Your task to perform on an android device: What's the weather going to be tomorrow? Image 0: 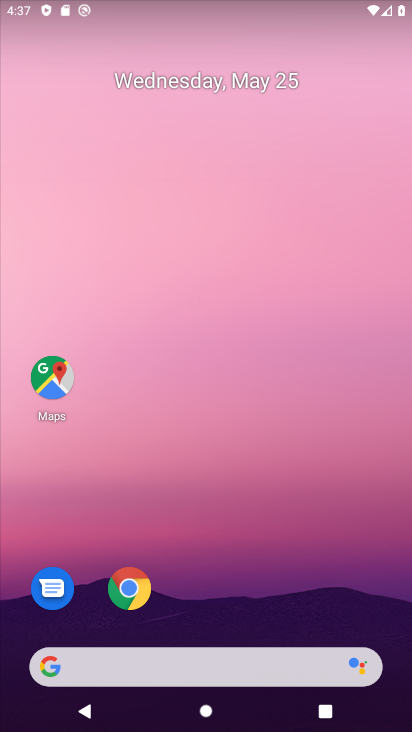
Step 0: click (147, 665)
Your task to perform on an android device: What's the weather going to be tomorrow? Image 1: 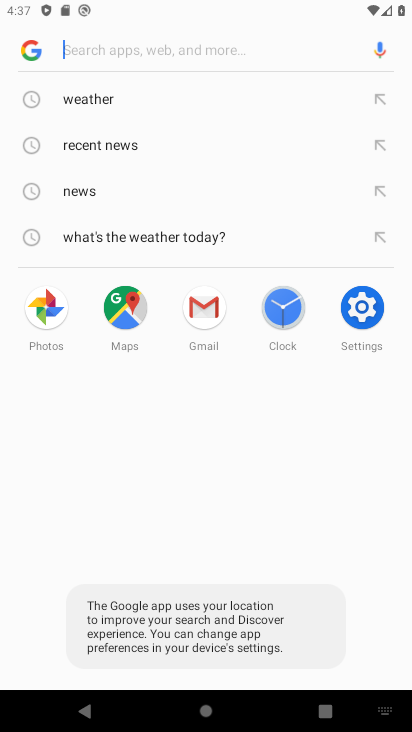
Step 1: click (193, 102)
Your task to perform on an android device: What's the weather going to be tomorrow? Image 2: 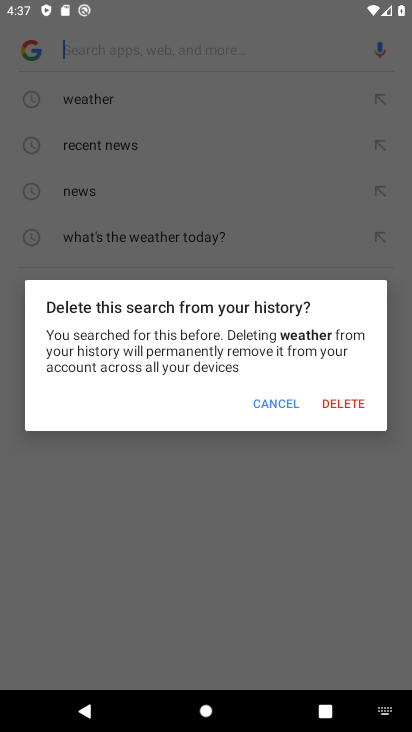
Step 2: click (94, 94)
Your task to perform on an android device: What's the weather going to be tomorrow? Image 3: 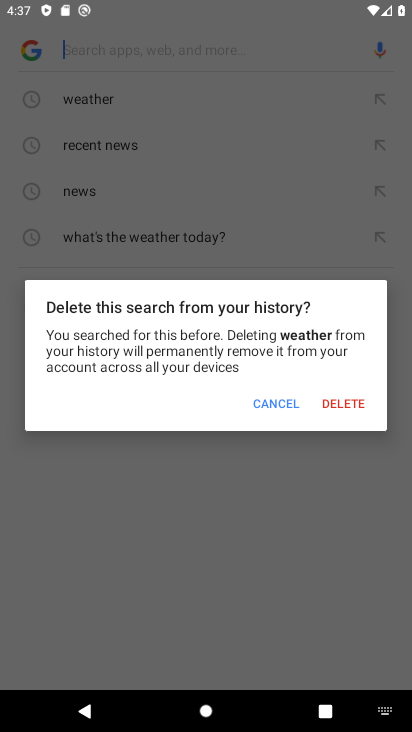
Step 3: click (104, 104)
Your task to perform on an android device: What's the weather going to be tomorrow? Image 4: 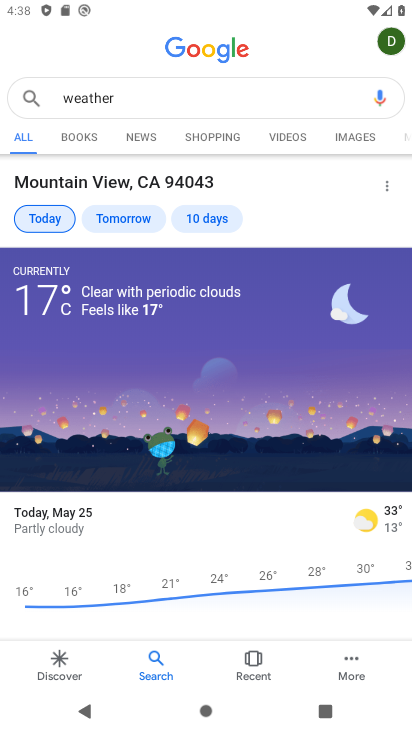
Step 4: click (136, 232)
Your task to perform on an android device: What's the weather going to be tomorrow? Image 5: 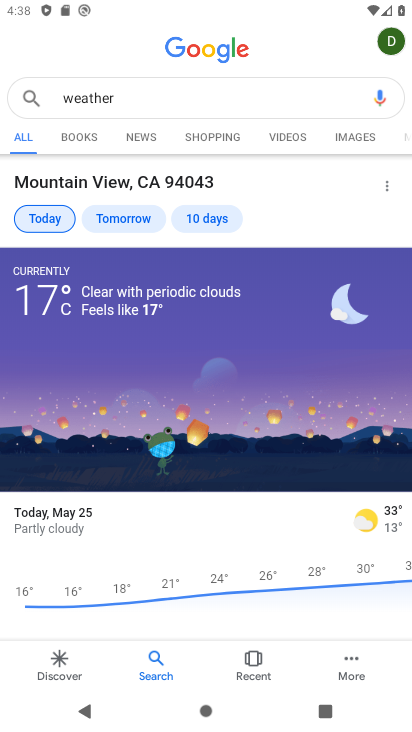
Step 5: drag from (162, 506) to (243, 148)
Your task to perform on an android device: What's the weather going to be tomorrow? Image 6: 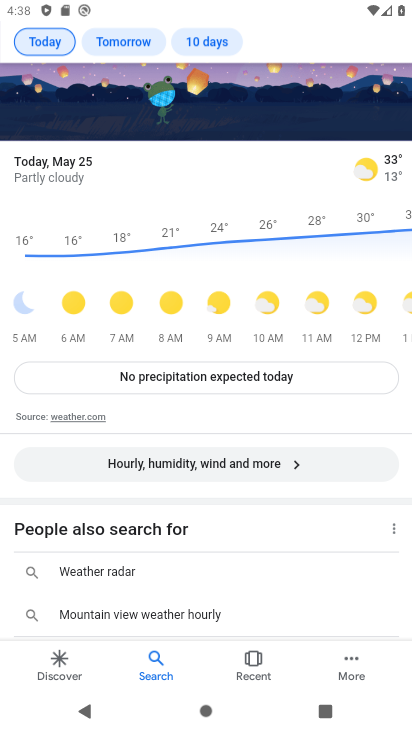
Step 6: drag from (194, 513) to (271, 147)
Your task to perform on an android device: What's the weather going to be tomorrow? Image 7: 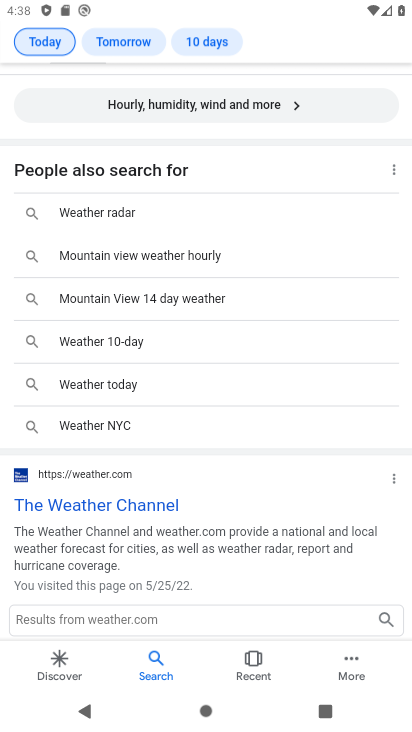
Step 7: click (154, 512)
Your task to perform on an android device: What's the weather going to be tomorrow? Image 8: 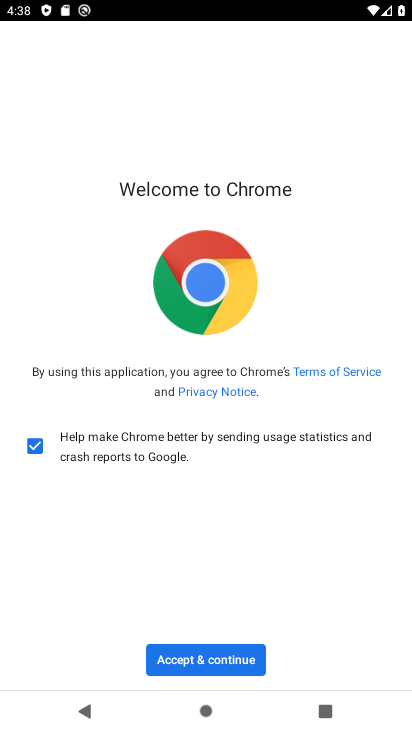
Step 8: click (213, 675)
Your task to perform on an android device: What's the weather going to be tomorrow? Image 9: 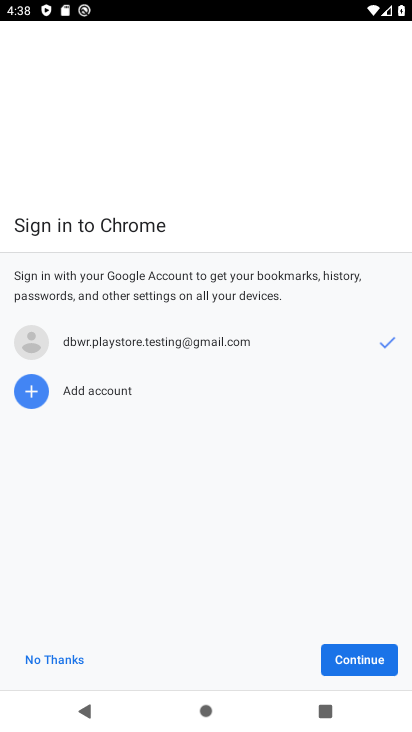
Step 9: click (372, 658)
Your task to perform on an android device: What's the weather going to be tomorrow? Image 10: 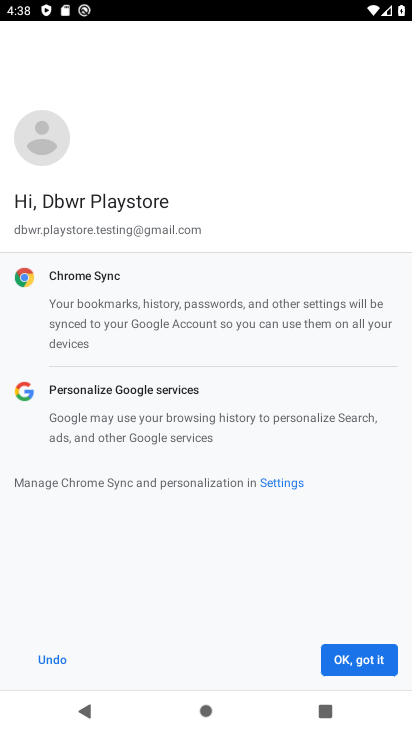
Step 10: click (372, 658)
Your task to perform on an android device: What's the weather going to be tomorrow? Image 11: 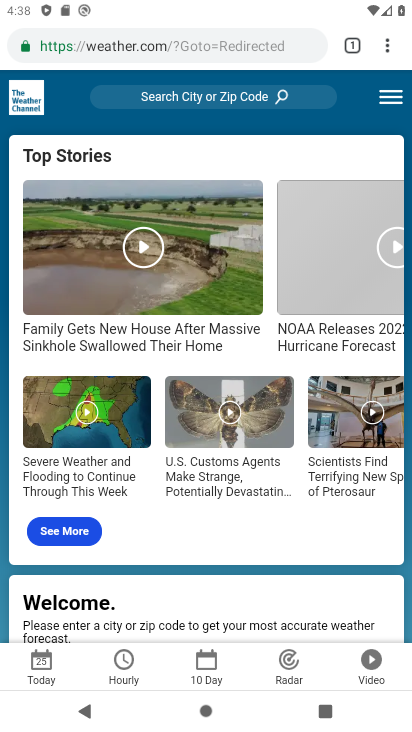
Step 11: click (202, 660)
Your task to perform on an android device: What's the weather going to be tomorrow? Image 12: 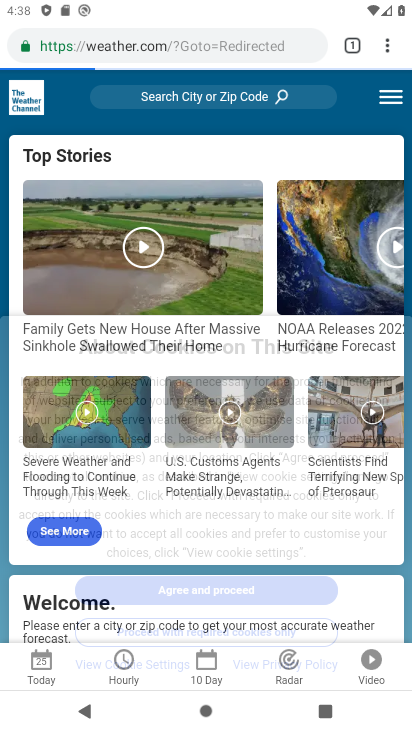
Step 12: click (201, 672)
Your task to perform on an android device: What's the weather going to be tomorrow? Image 13: 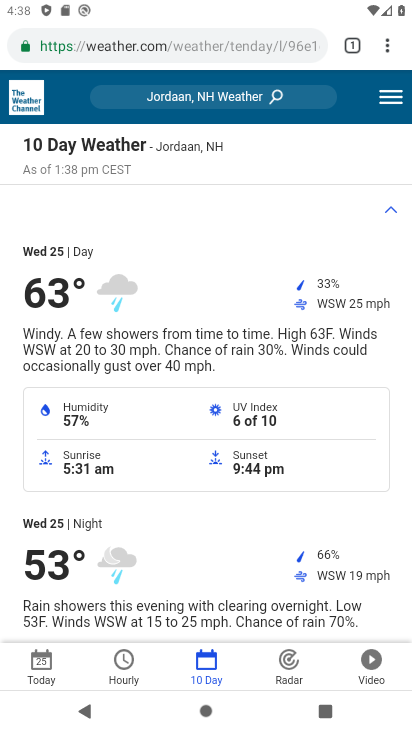
Step 13: drag from (191, 569) to (290, 210)
Your task to perform on an android device: What's the weather going to be tomorrow? Image 14: 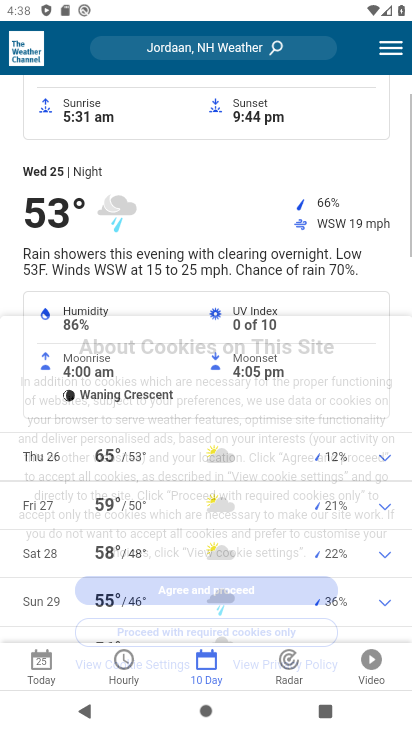
Step 14: drag from (206, 502) to (252, 311)
Your task to perform on an android device: What's the weather going to be tomorrow? Image 15: 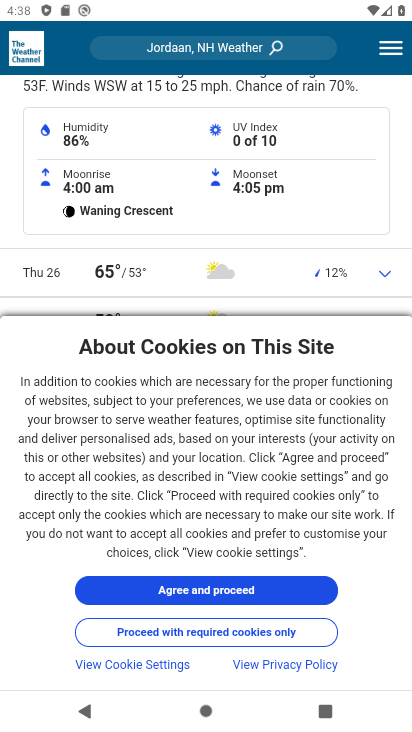
Step 15: click (233, 589)
Your task to perform on an android device: What's the weather going to be tomorrow? Image 16: 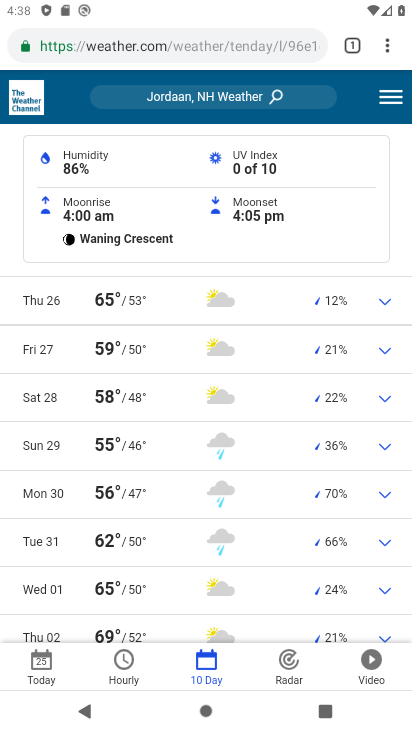
Step 16: task complete